Your task to perform on an android device: toggle priority inbox in the gmail app Image 0: 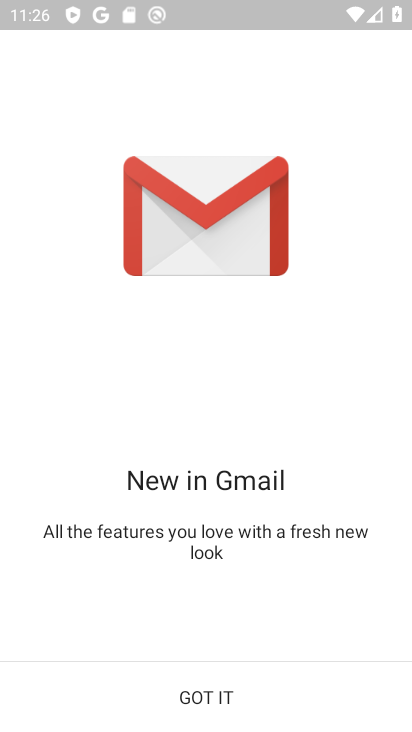
Step 0: click (211, 701)
Your task to perform on an android device: toggle priority inbox in the gmail app Image 1: 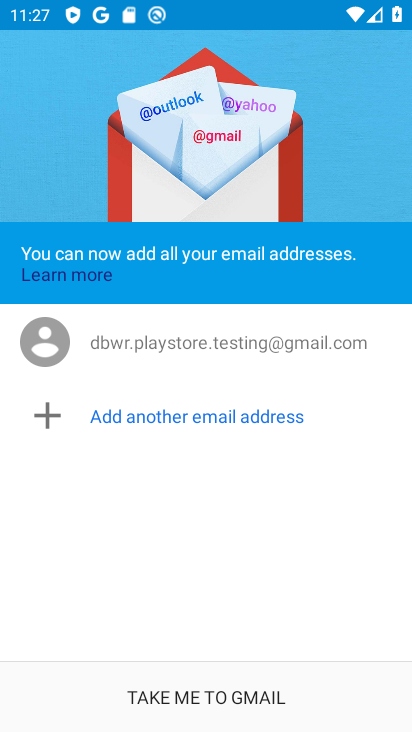
Step 1: click (231, 685)
Your task to perform on an android device: toggle priority inbox in the gmail app Image 2: 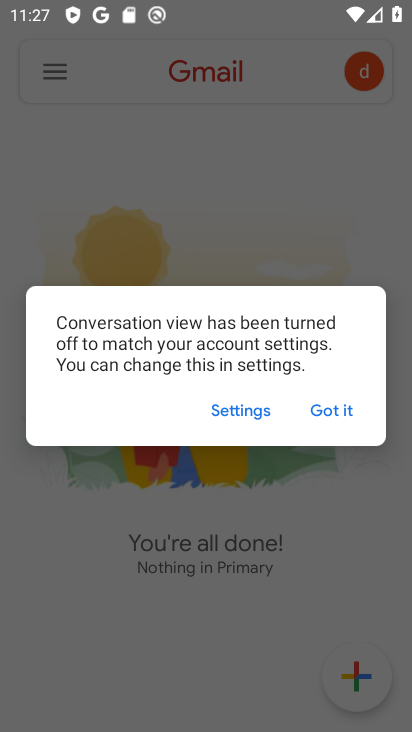
Step 2: click (326, 417)
Your task to perform on an android device: toggle priority inbox in the gmail app Image 3: 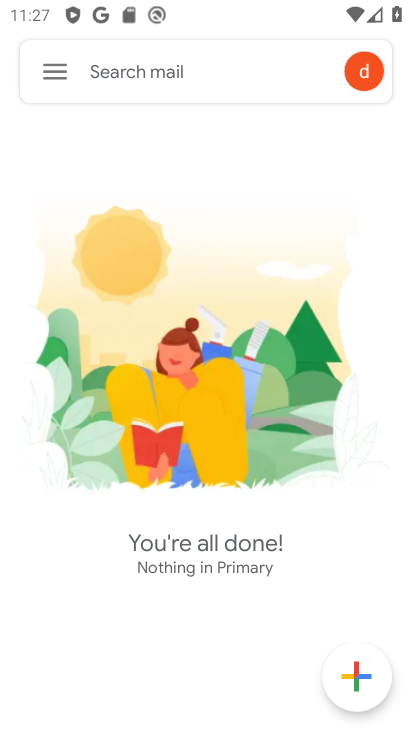
Step 3: click (52, 75)
Your task to perform on an android device: toggle priority inbox in the gmail app Image 4: 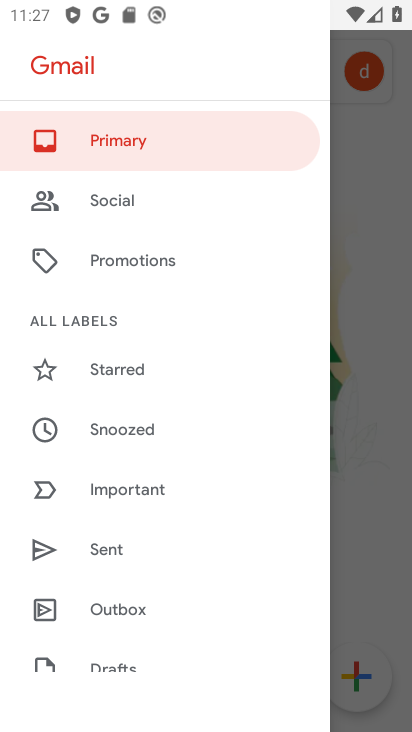
Step 4: drag from (135, 525) to (156, 458)
Your task to perform on an android device: toggle priority inbox in the gmail app Image 5: 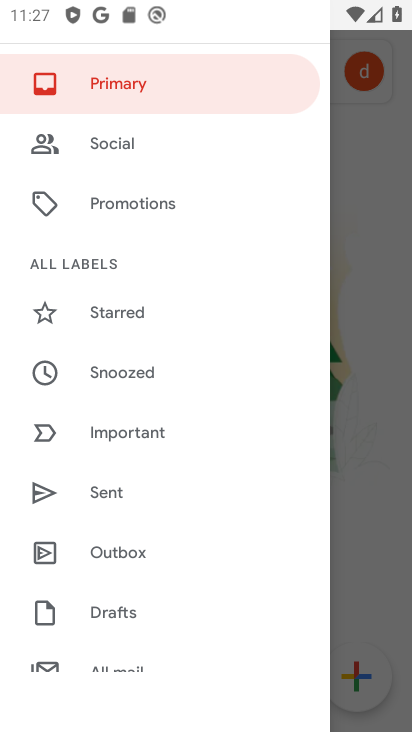
Step 5: drag from (137, 526) to (166, 464)
Your task to perform on an android device: toggle priority inbox in the gmail app Image 6: 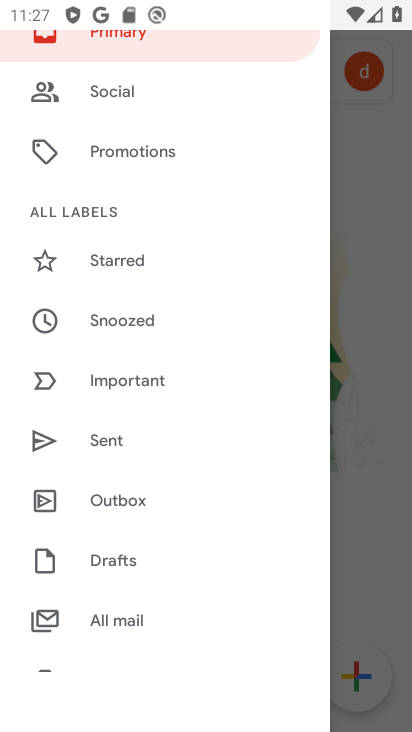
Step 6: drag from (124, 534) to (98, 447)
Your task to perform on an android device: toggle priority inbox in the gmail app Image 7: 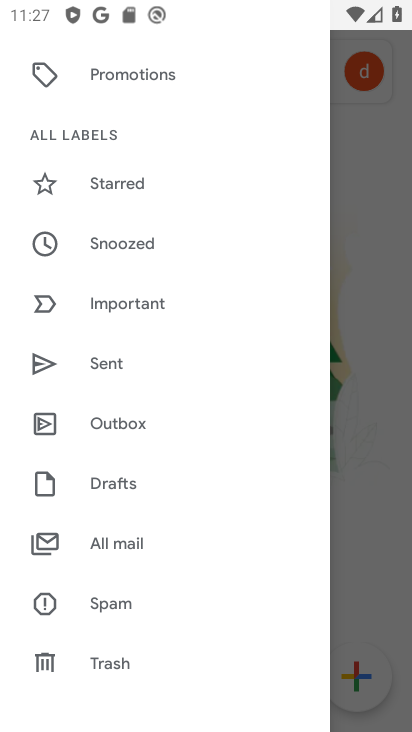
Step 7: drag from (113, 508) to (128, 424)
Your task to perform on an android device: toggle priority inbox in the gmail app Image 8: 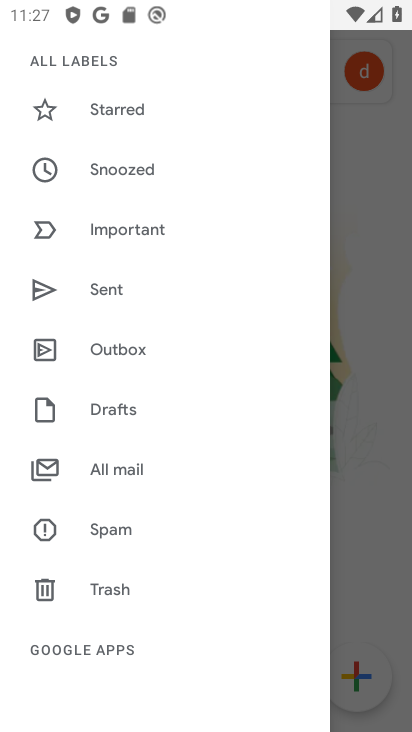
Step 8: drag from (95, 510) to (106, 397)
Your task to perform on an android device: toggle priority inbox in the gmail app Image 9: 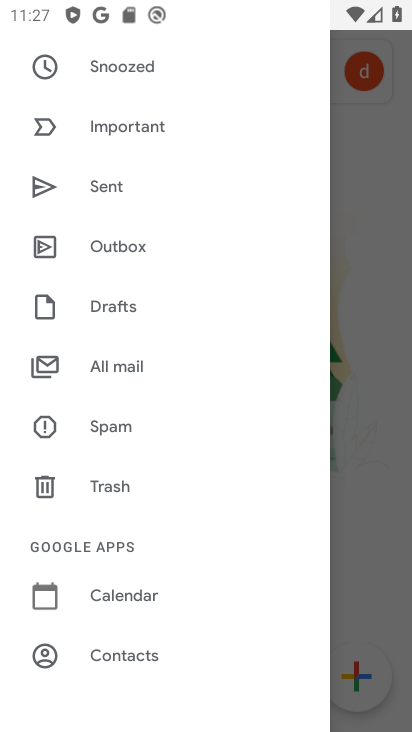
Step 9: drag from (101, 461) to (118, 364)
Your task to perform on an android device: toggle priority inbox in the gmail app Image 10: 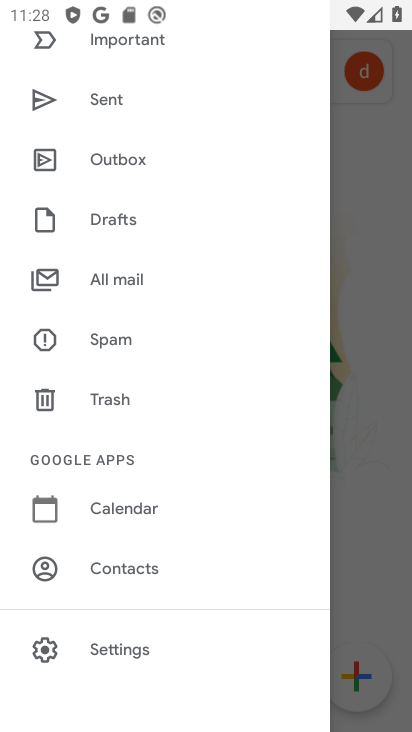
Step 10: click (135, 648)
Your task to perform on an android device: toggle priority inbox in the gmail app Image 11: 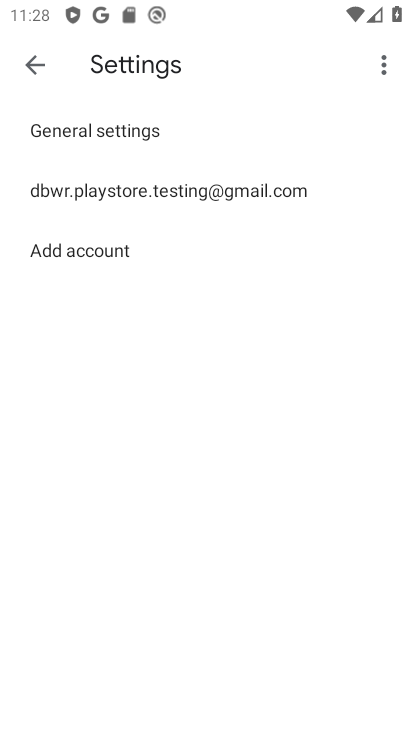
Step 11: click (231, 186)
Your task to perform on an android device: toggle priority inbox in the gmail app Image 12: 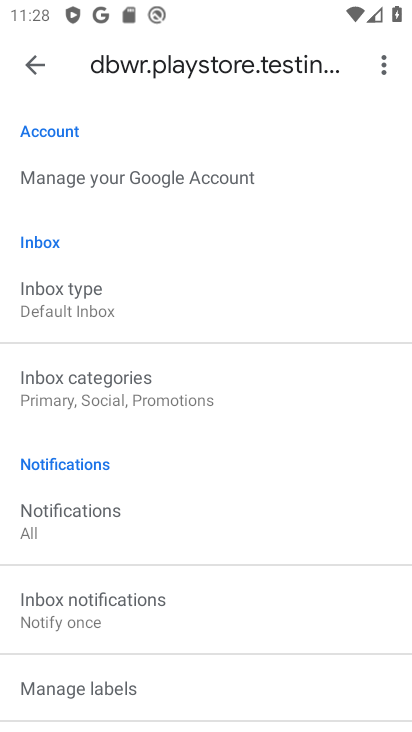
Step 12: click (113, 303)
Your task to perform on an android device: toggle priority inbox in the gmail app Image 13: 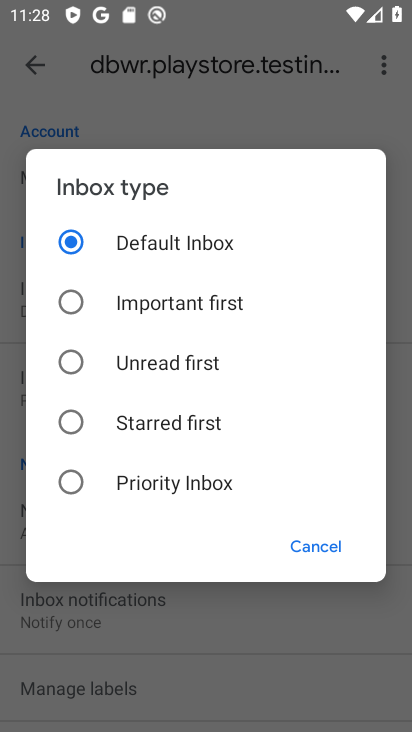
Step 13: click (66, 485)
Your task to perform on an android device: toggle priority inbox in the gmail app Image 14: 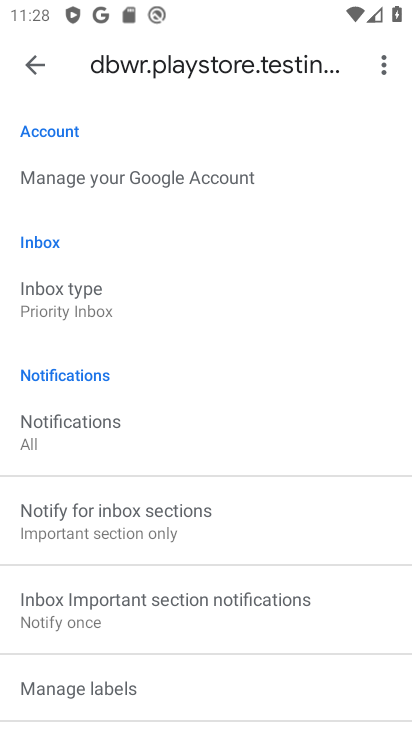
Step 14: task complete